Your task to perform on an android device: make emails show in primary in the gmail app Image 0: 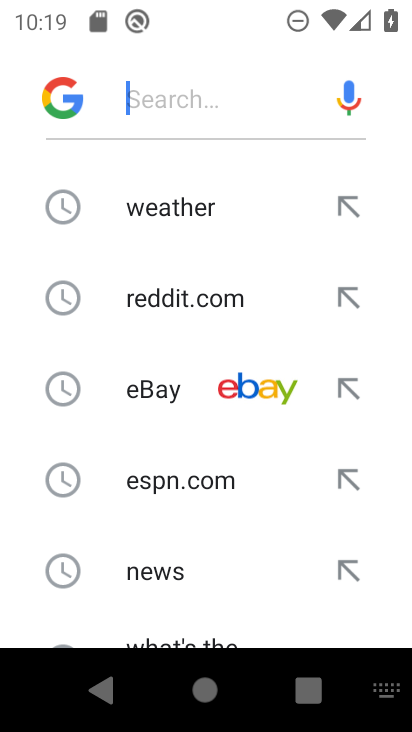
Step 0: drag from (203, 534) to (249, 135)
Your task to perform on an android device: make emails show in primary in the gmail app Image 1: 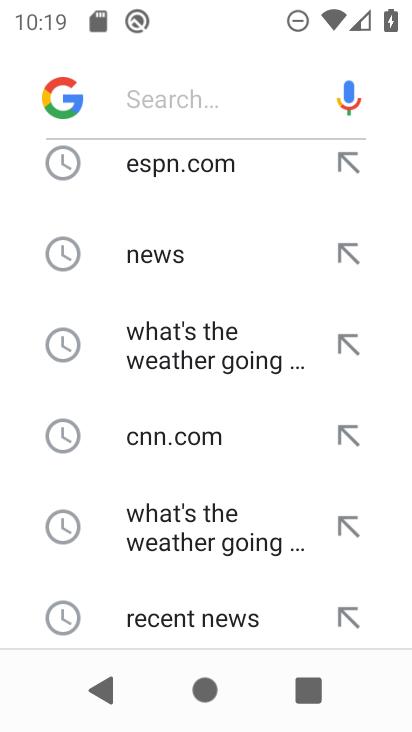
Step 1: click (176, 102)
Your task to perform on an android device: make emails show in primary in the gmail app Image 2: 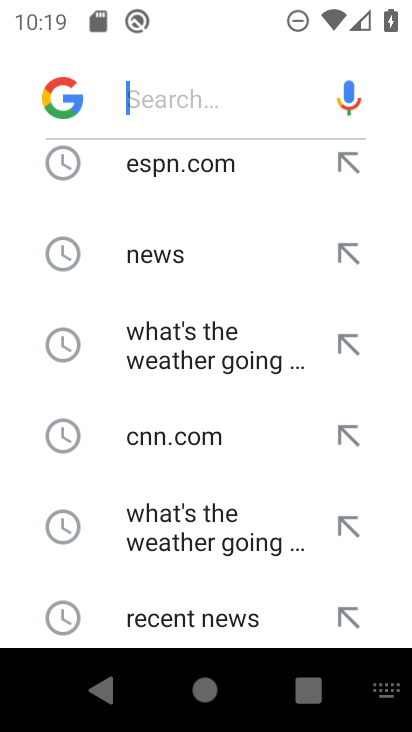
Step 2: press home button
Your task to perform on an android device: make emails show in primary in the gmail app Image 3: 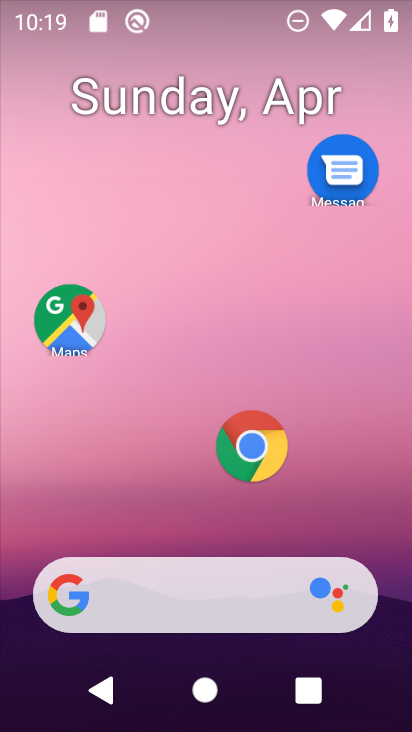
Step 3: drag from (210, 517) to (243, 88)
Your task to perform on an android device: make emails show in primary in the gmail app Image 4: 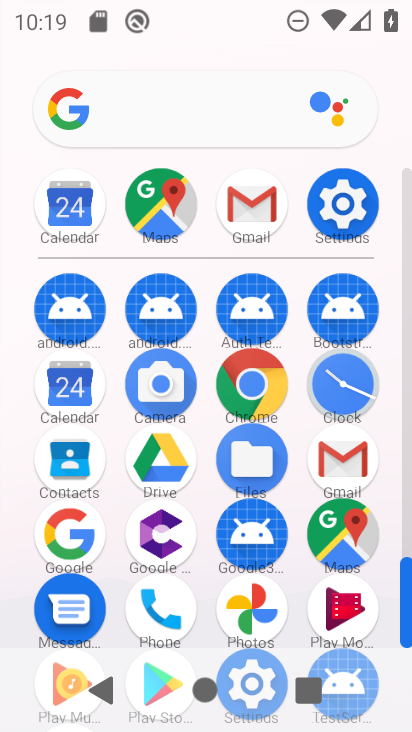
Step 4: click (321, 408)
Your task to perform on an android device: make emails show in primary in the gmail app Image 5: 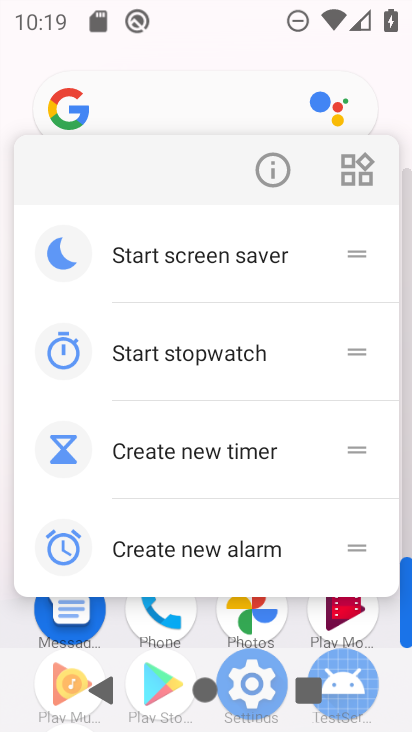
Step 5: click (393, 641)
Your task to perform on an android device: make emails show in primary in the gmail app Image 6: 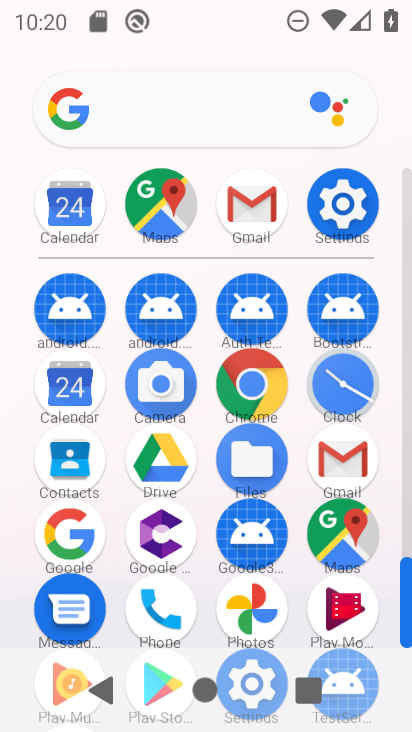
Step 6: click (327, 444)
Your task to perform on an android device: make emails show in primary in the gmail app Image 7: 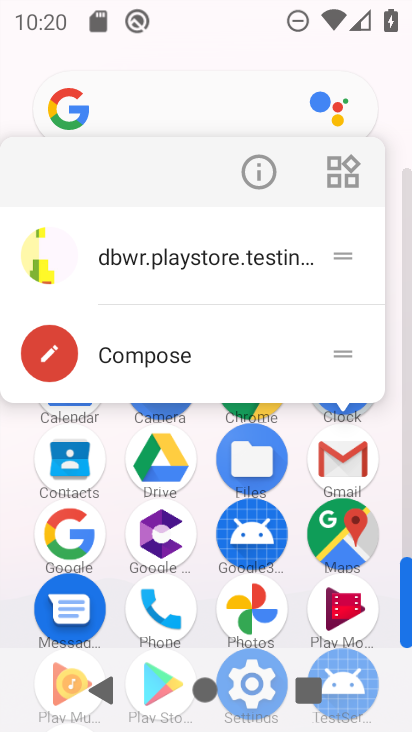
Step 7: click (262, 181)
Your task to perform on an android device: make emails show in primary in the gmail app Image 8: 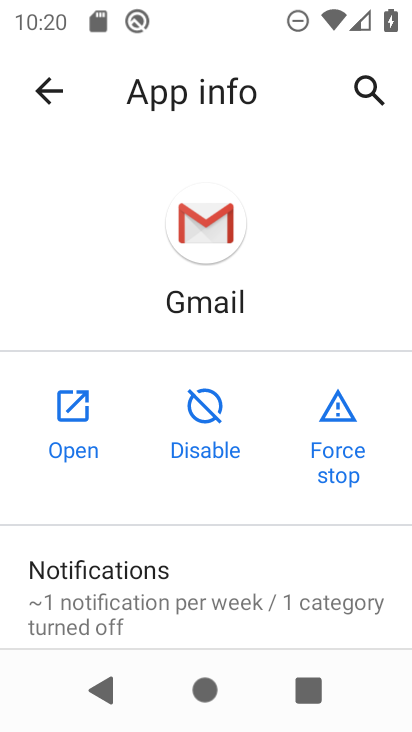
Step 8: click (77, 425)
Your task to perform on an android device: make emails show in primary in the gmail app Image 9: 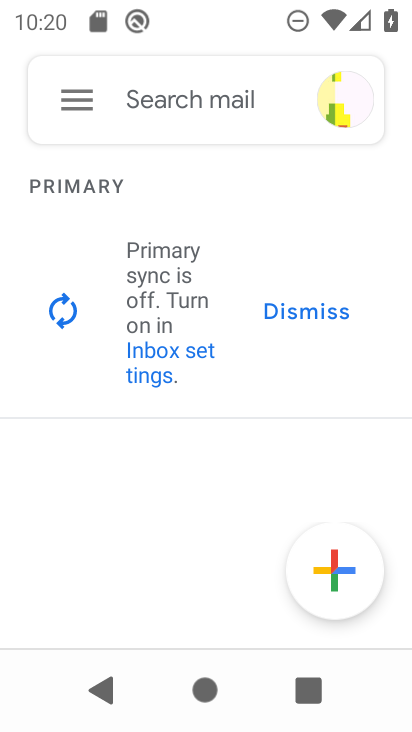
Step 9: drag from (197, 525) to (249, 296)
Your task to perform on an android device: make emails show in primary in the gmail app Image 10: 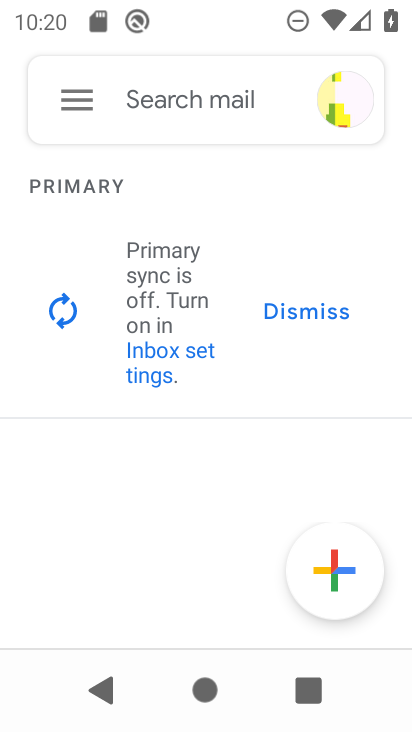
Step 10: click (79, 98)
Your task to perform on an android device: make emails show in primary in the gmail app Image 11: 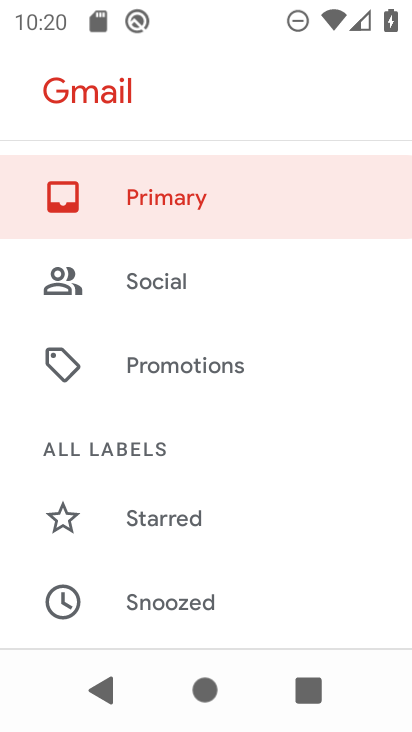
Step 11: drag from (196, 463) to (246, 164)
Your task to perform on an android device: make emails show in primary in the gmail app Image 12: 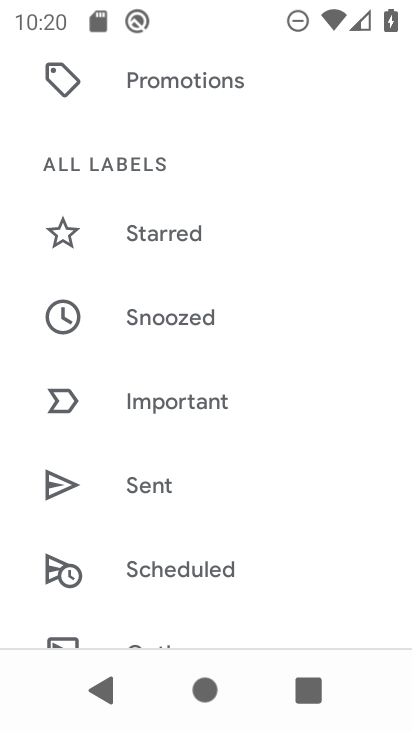
Step 12: drag from (226, 581) to (232, 182)
Your task to perform on an android device: make emails show in primary in the gmail app Image 13: 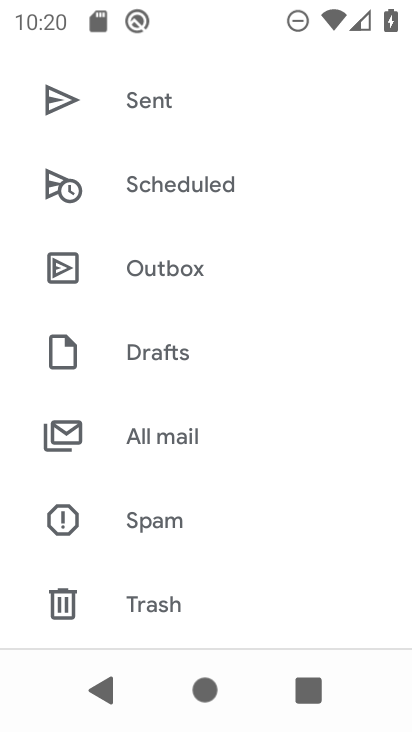
Step 13: drag from (213, 303) to (192, 723)
Your task to perform on an android device: make emails show in primary in the gmail app Image 14: 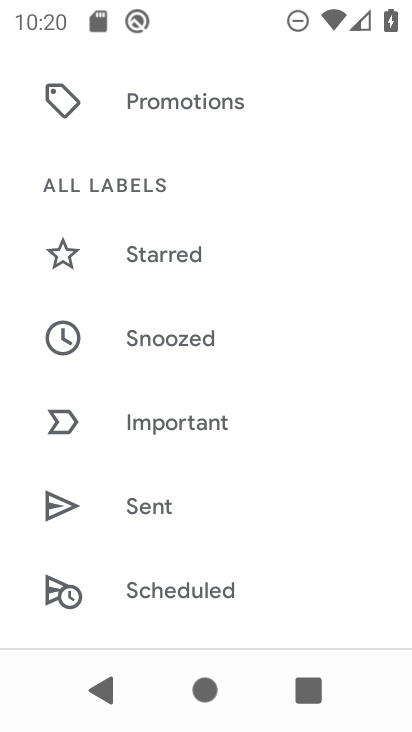
Step 14: drag from (135, 164) to (167, 699)
Your task to perform on an android device: make emails show in primary in the gmail app Image 15: 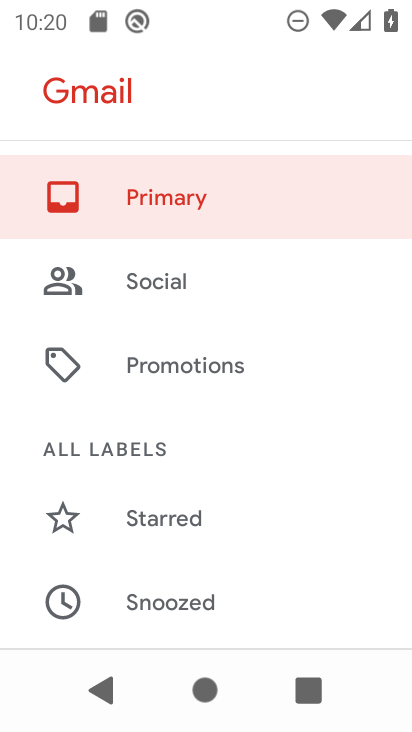
Step 15: click (177, 199)
Your task to perform on an android device: make emails show in primary in the gmail app Image 16: 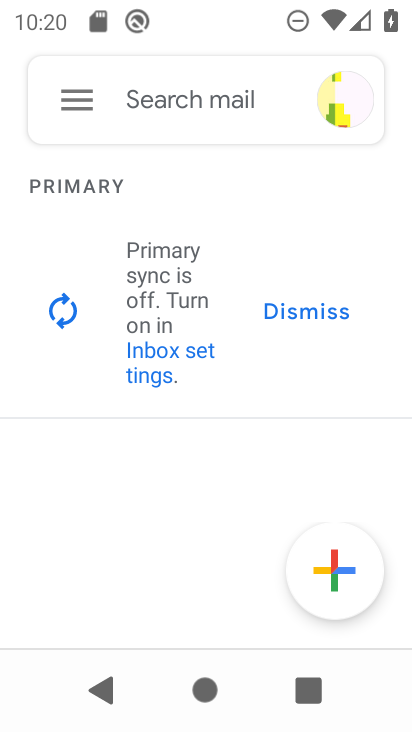
Step 16: task complete